Your task to perform on an android device: Open Google Maps Image 0: 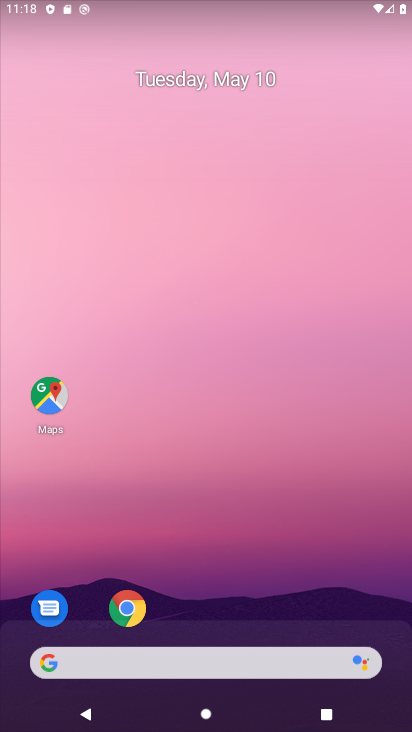
Step 0: click (50, 407)
Your task to perform on an android device: Open Google Maps Image 1: 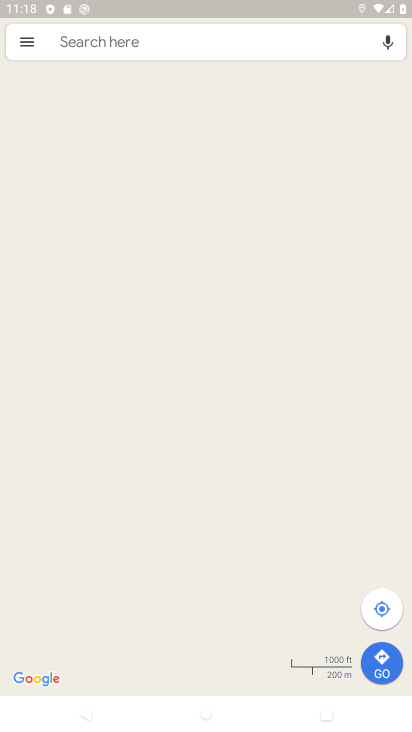
Step 1: task complete